Your task to perform on an android device: Check the settings for the Instagram app Image 0: 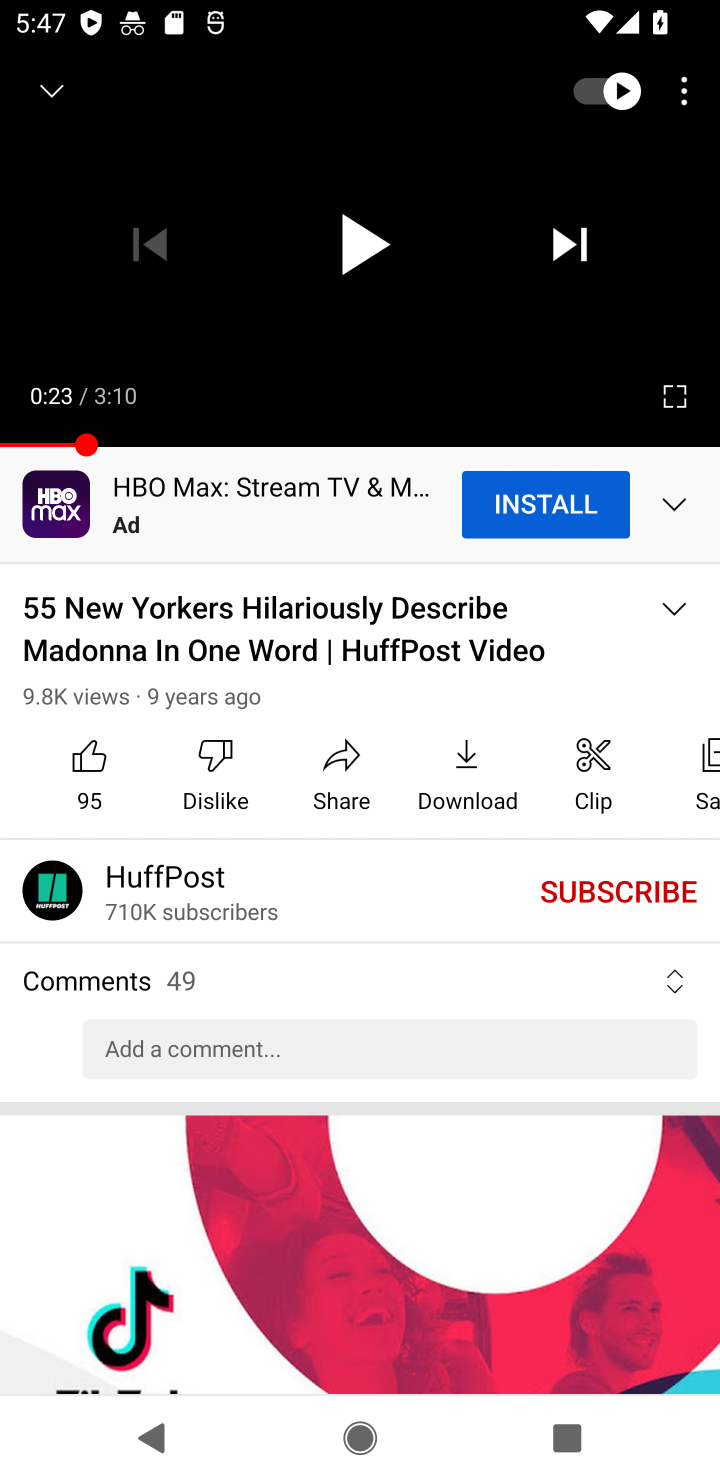
Step 0: press home button
Your task to perform on an android device: Check the settings for the Instagram app Image 1: 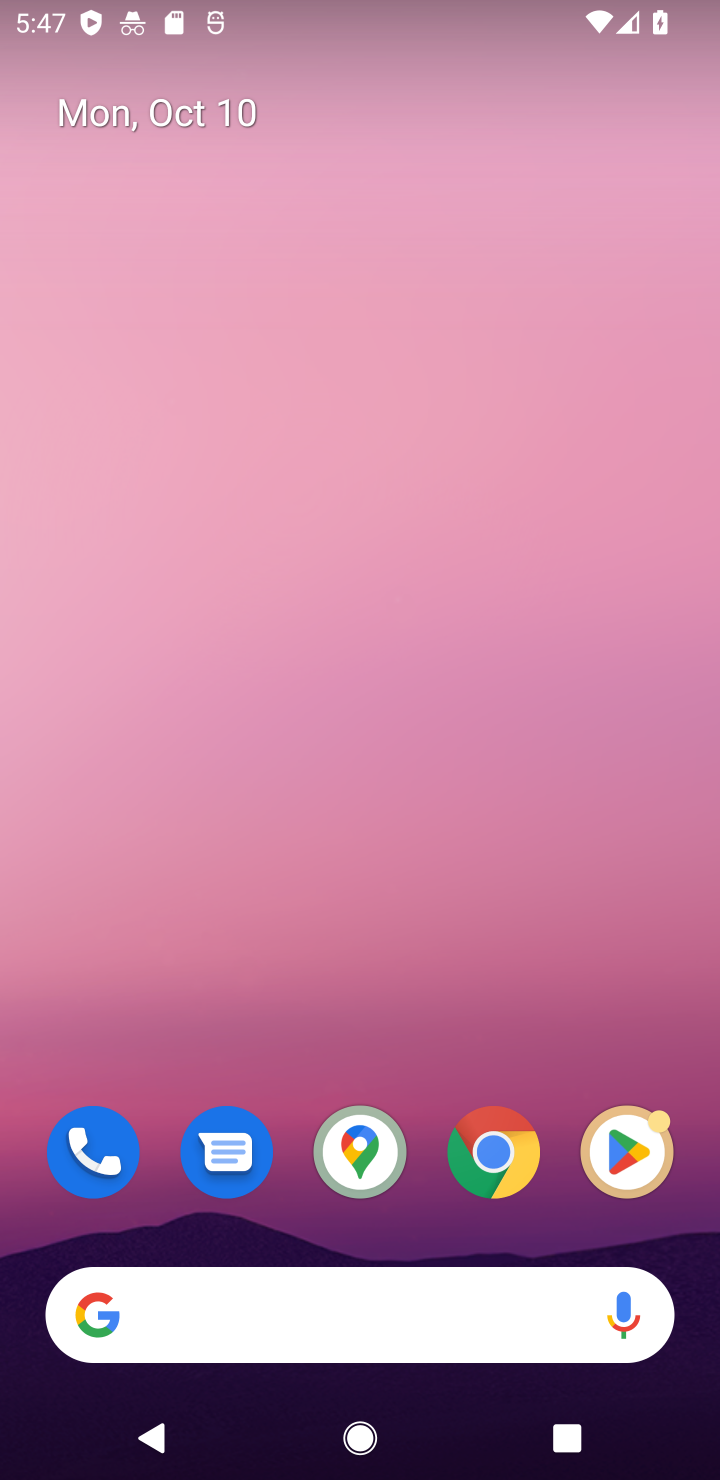
Step 1: click (635, 1149)
Your task to perform on an android device: Check the settings for the Instagram app Image 2: 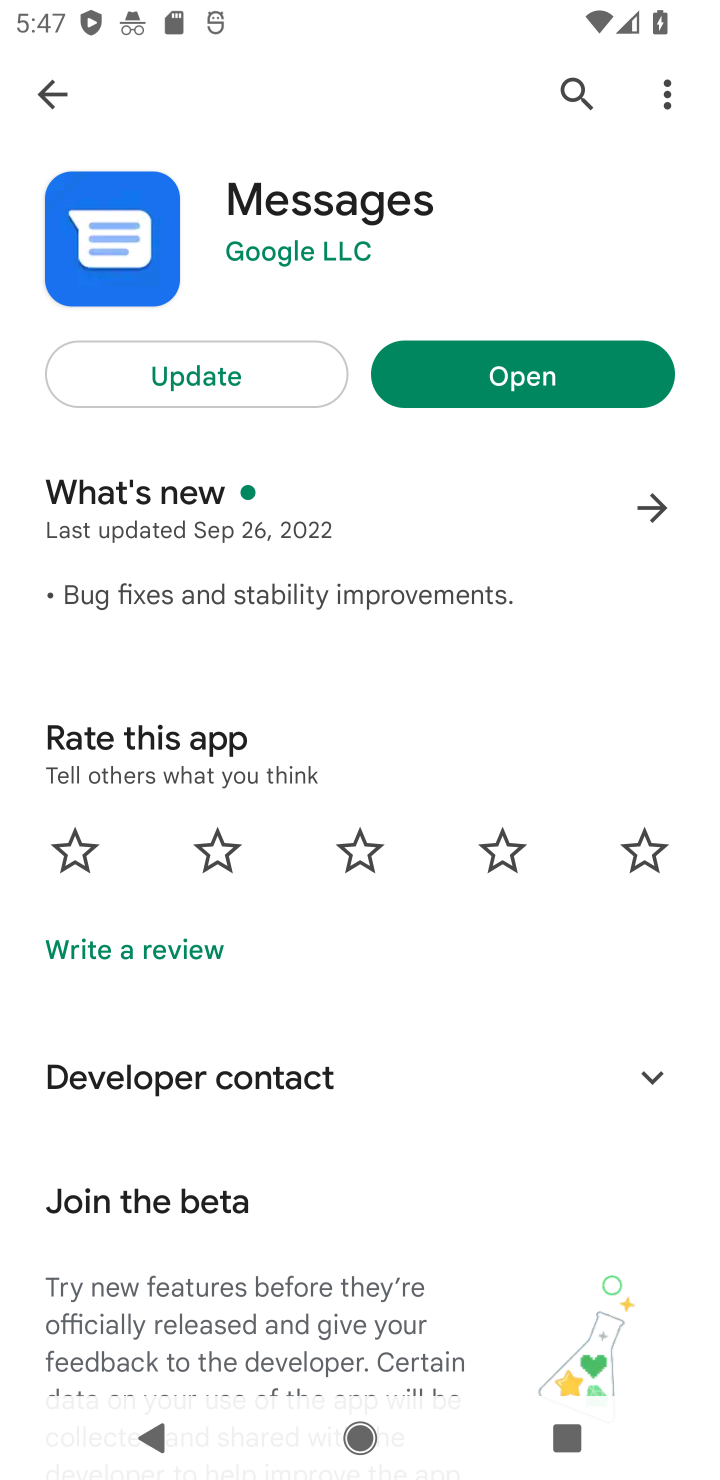
Step 2: press back button
Your task to perform on an android device: Check the settings for the Instagram app Image 3: 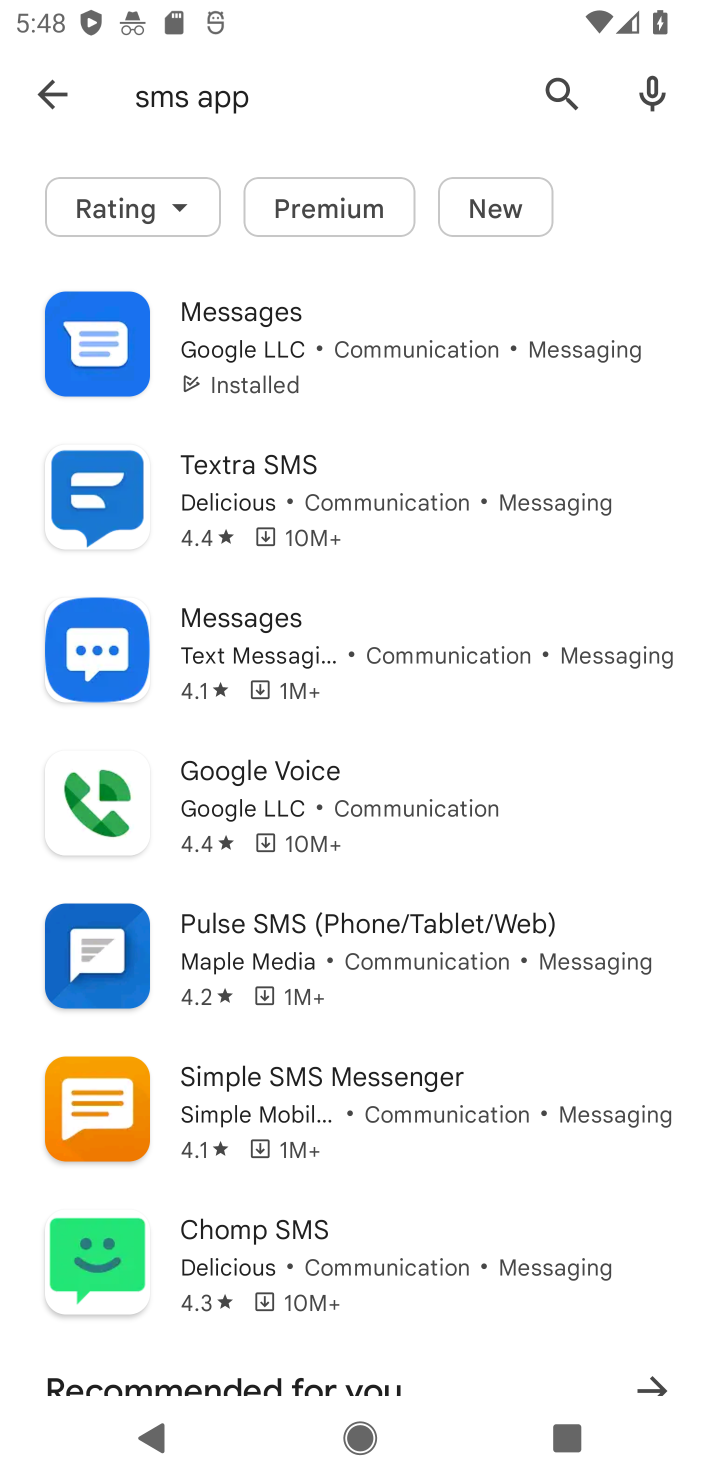
Step 3: click (561, 105)
Your task to perform on an android device: Check the settings for the Instagram app Image 4: 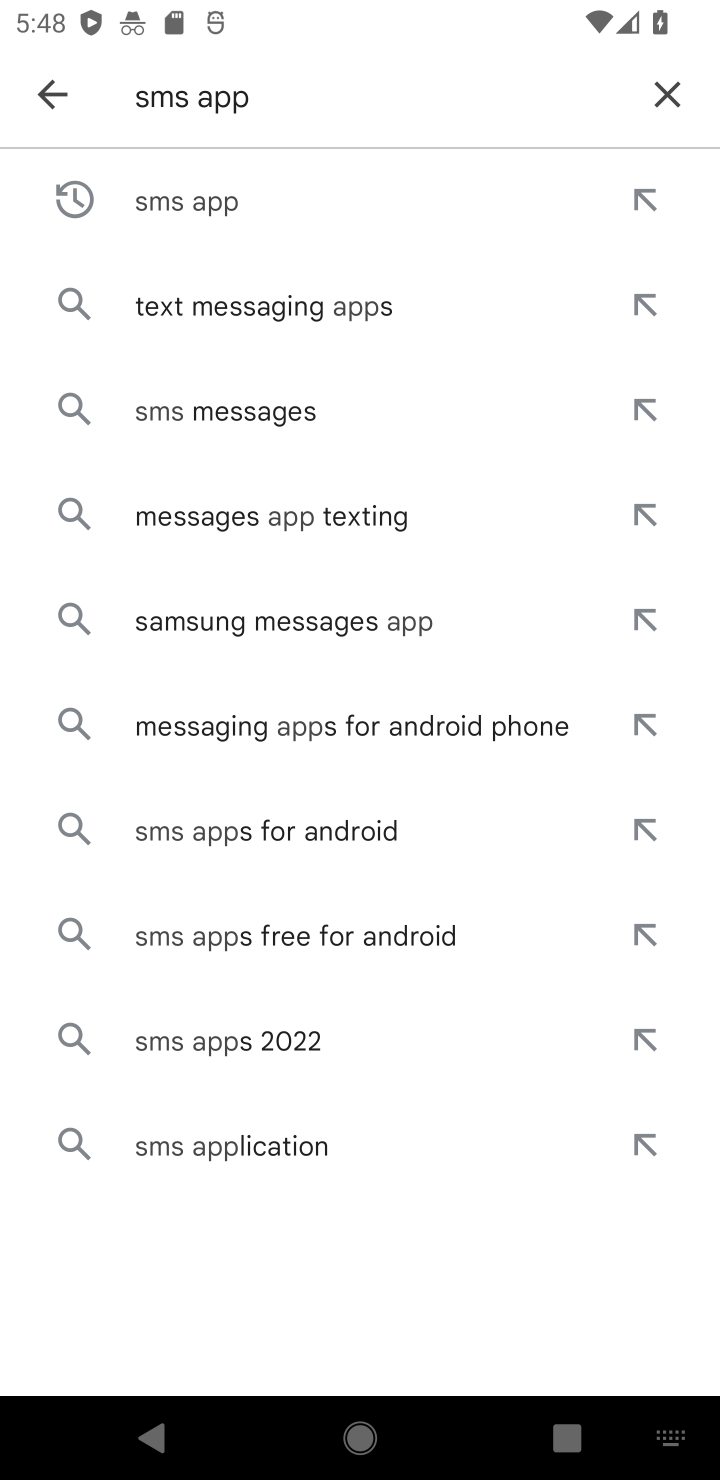
Step 4: click (674, 95)
Your task to perform on an android device: Check the settings for the Instagram app Image 5: 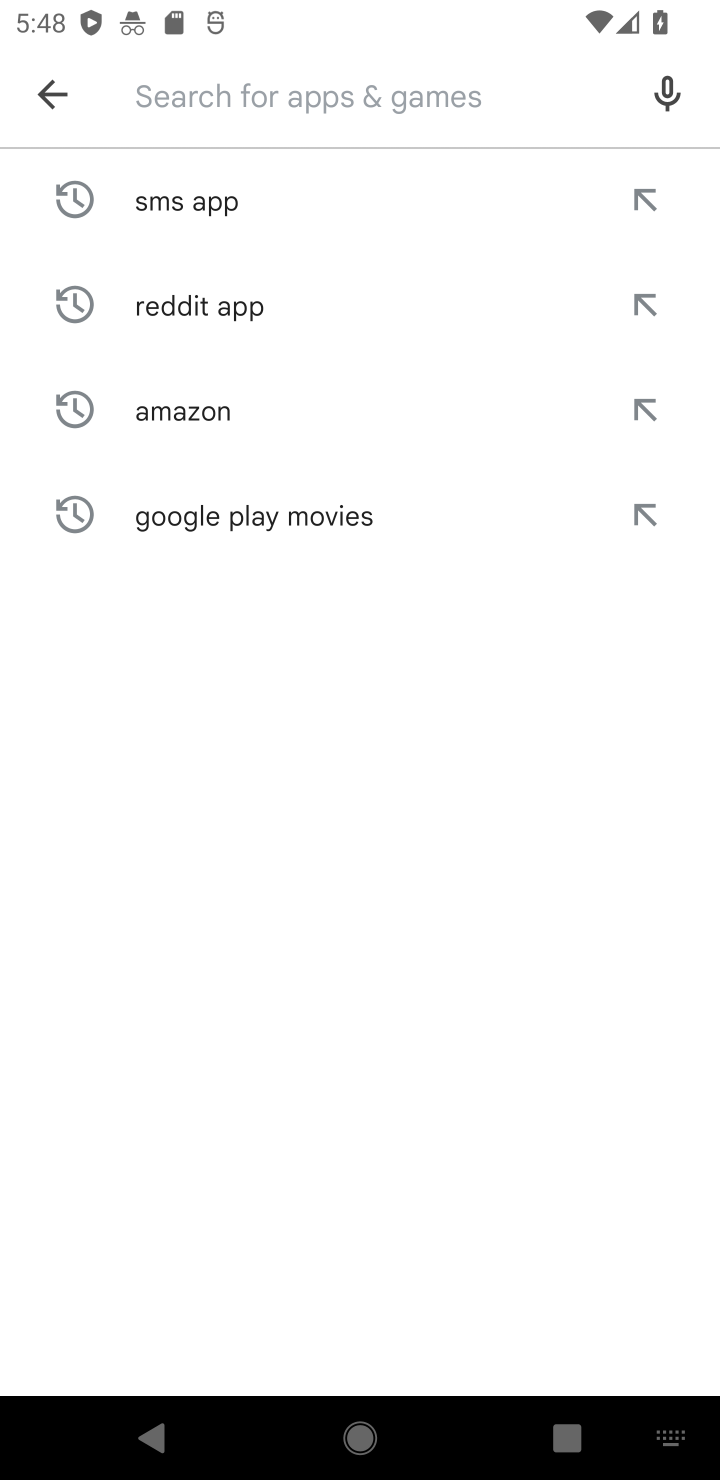
Step 5: type "Instagram app"
Your task to perform on an android device: Check the settings for the Instagram app Image 6: 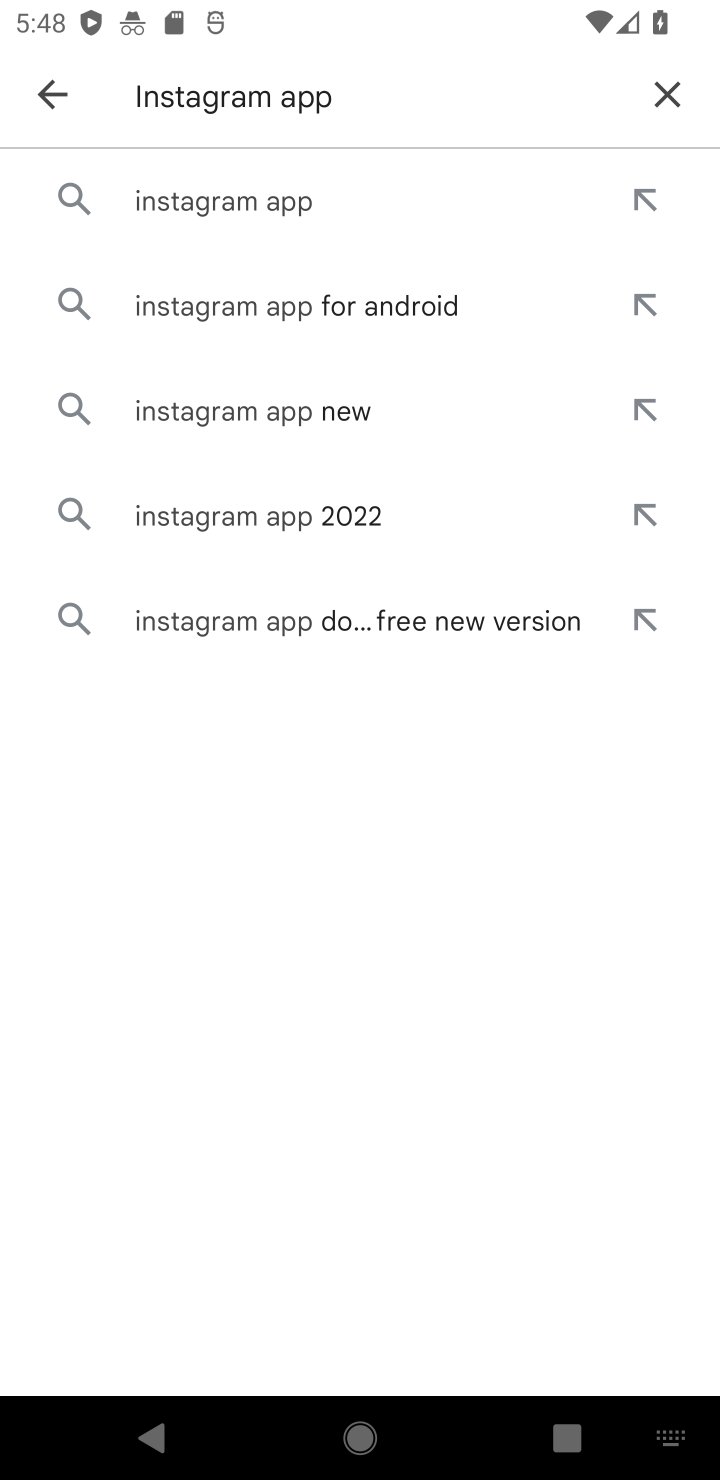
Step 6: click (312, 205)
Your task to perform on an android device: Check the settings for the Instagram app Image 7: 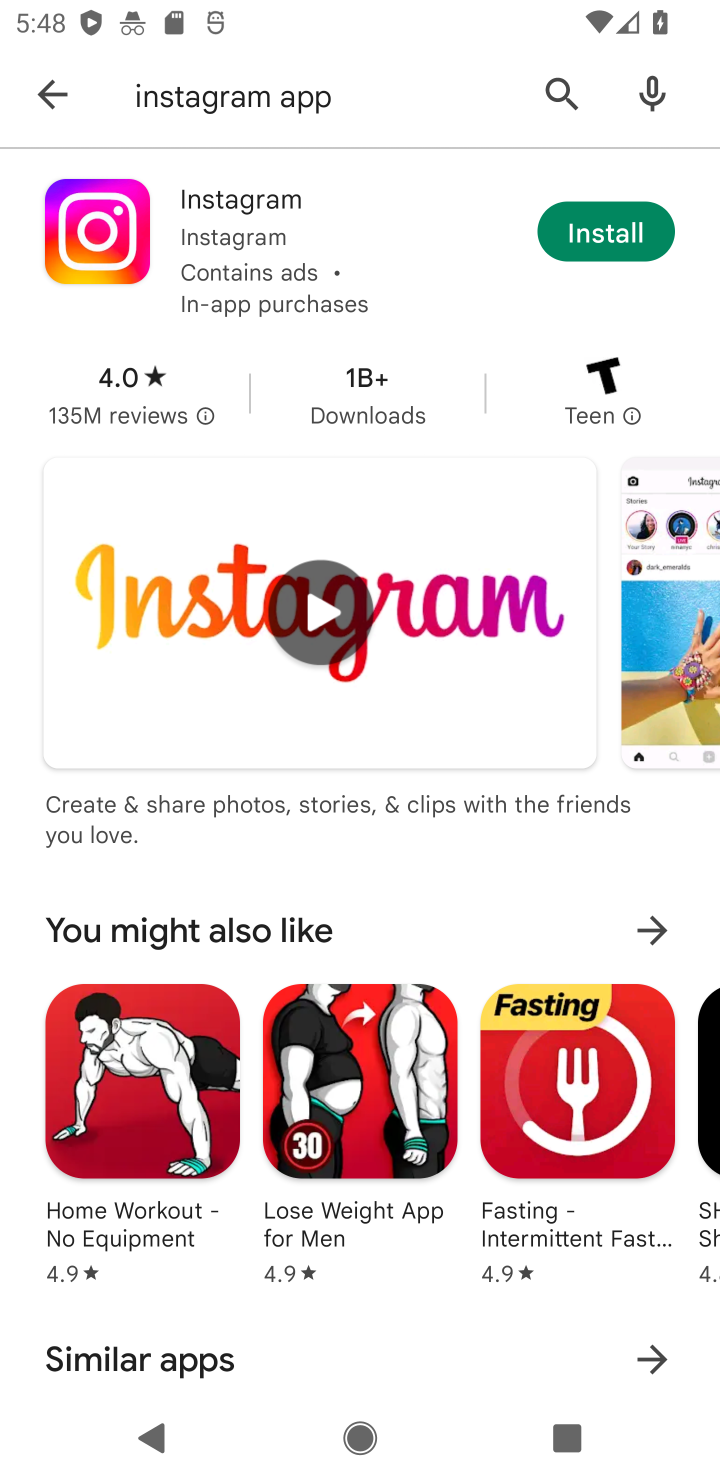
Step 7: task complete